Your task to perform on an android device: turn off airplane mode Image 0: 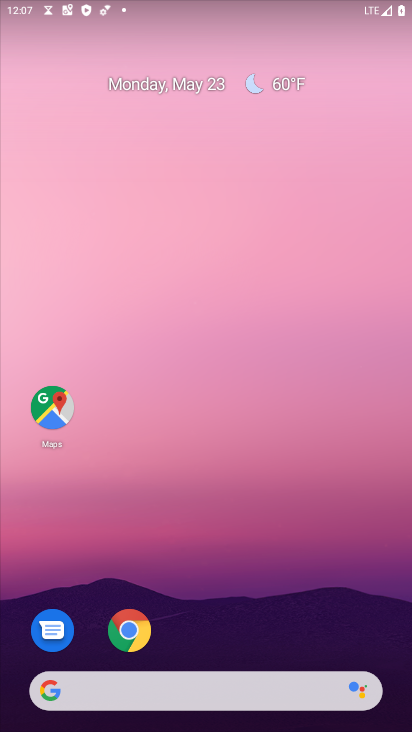
Step 0: drag from (245, 620) to (225, 63)
Your task to perform on an android device: turn off airplane mode Image 1: 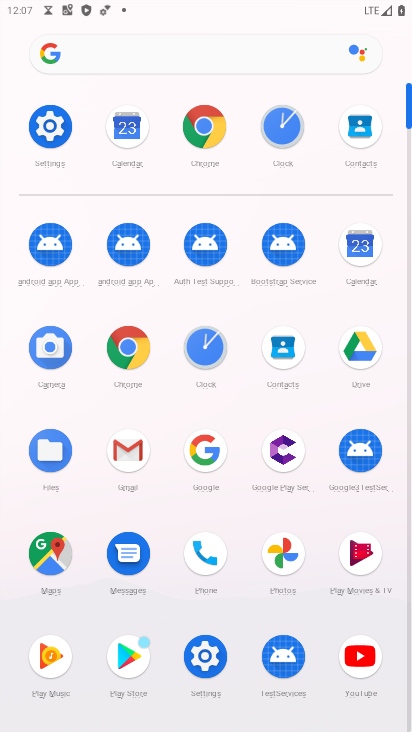
Step 1: click (50, 125)
Your task to perform on an android device: turn off airplane mode Image 2: 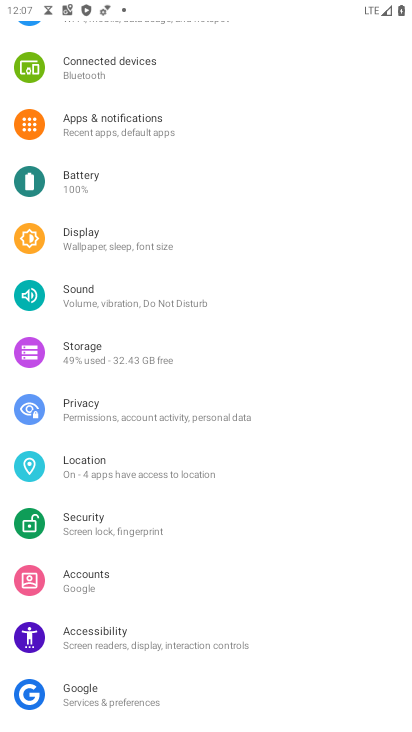
Step 2: drag from (140, 175) to (131, 260)
Your task to perform on an android device: turn off airplane mode Image 3: 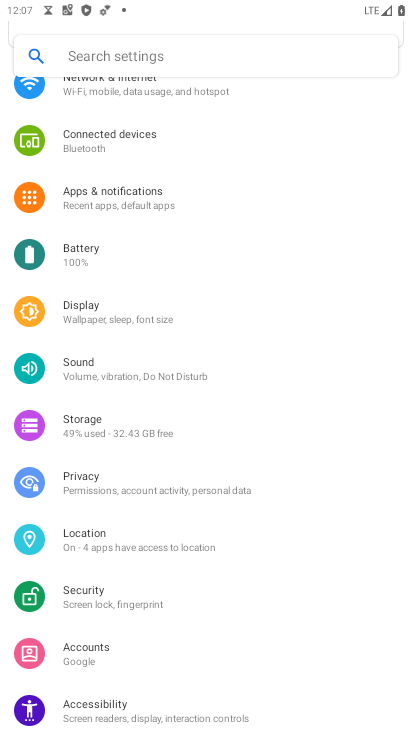
Step 3: drag from (177, 168) to (185, 321)
Your task to perform on an android device: turn off airplane mode Image 4: 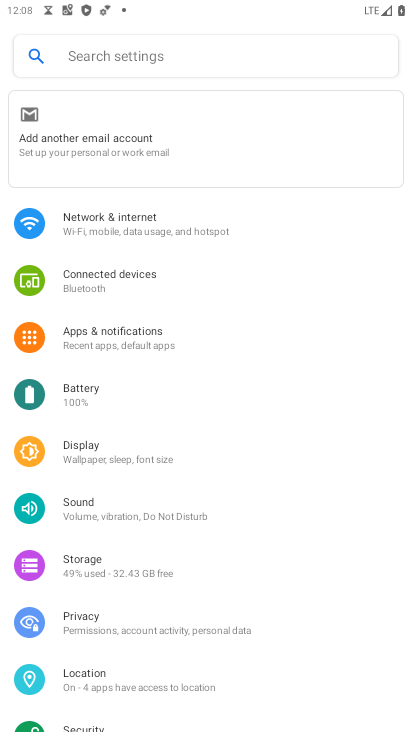
Step 4: click (118, 214)
Your task to perform on an android device: turn off airplane mode Image 5: 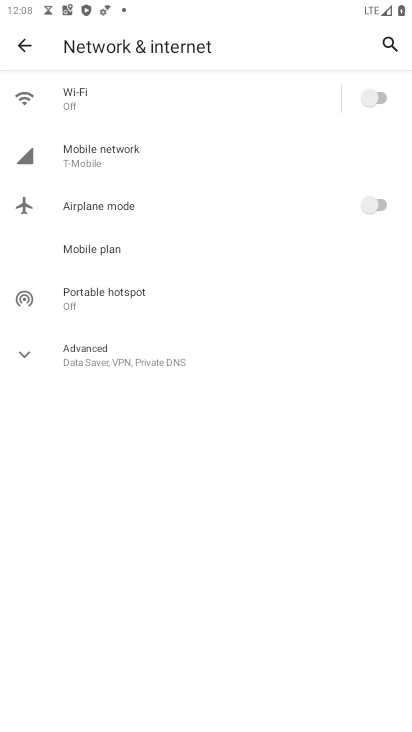
Step 5: task complete